Your task to perform on an android device: open app "Move to iOS" (install if not already installed) Image 0: 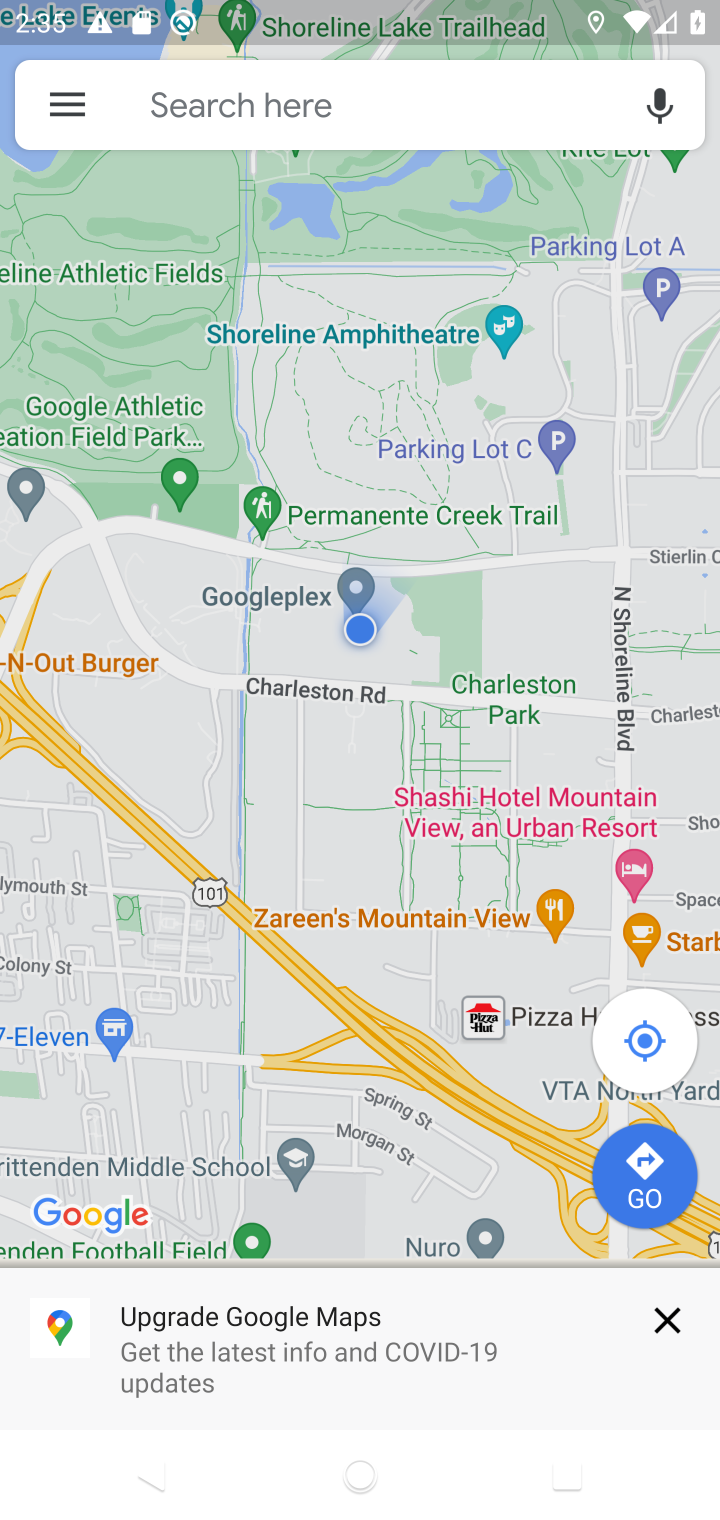
Step 0: press home button
Your task to perform on an android device: open app "Move to iOS" (install if not already installed) Image 1: 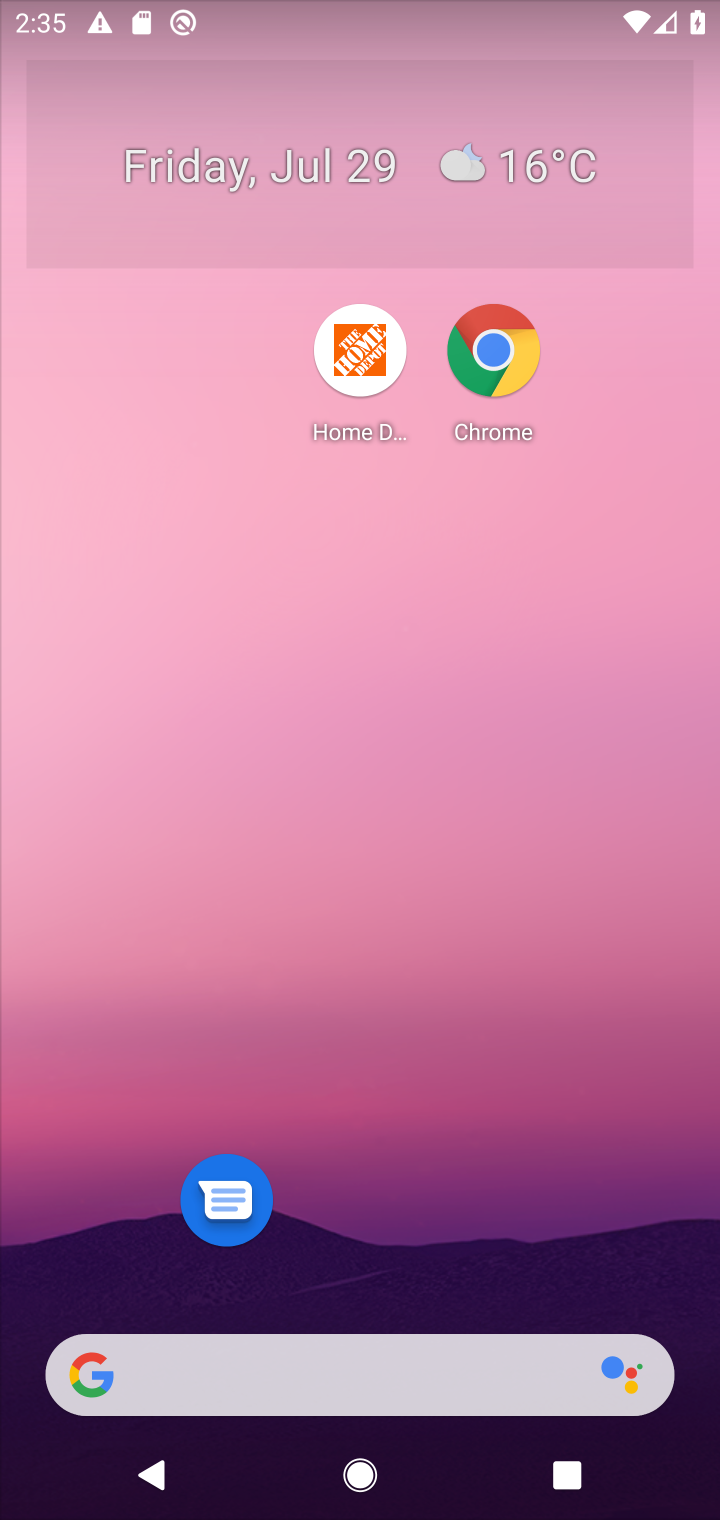
Step 1: drag from (572, 970) to (520, 57)
Your task to perform on an android device: open app "Move to iOS" (install if not already installed) Image 2: 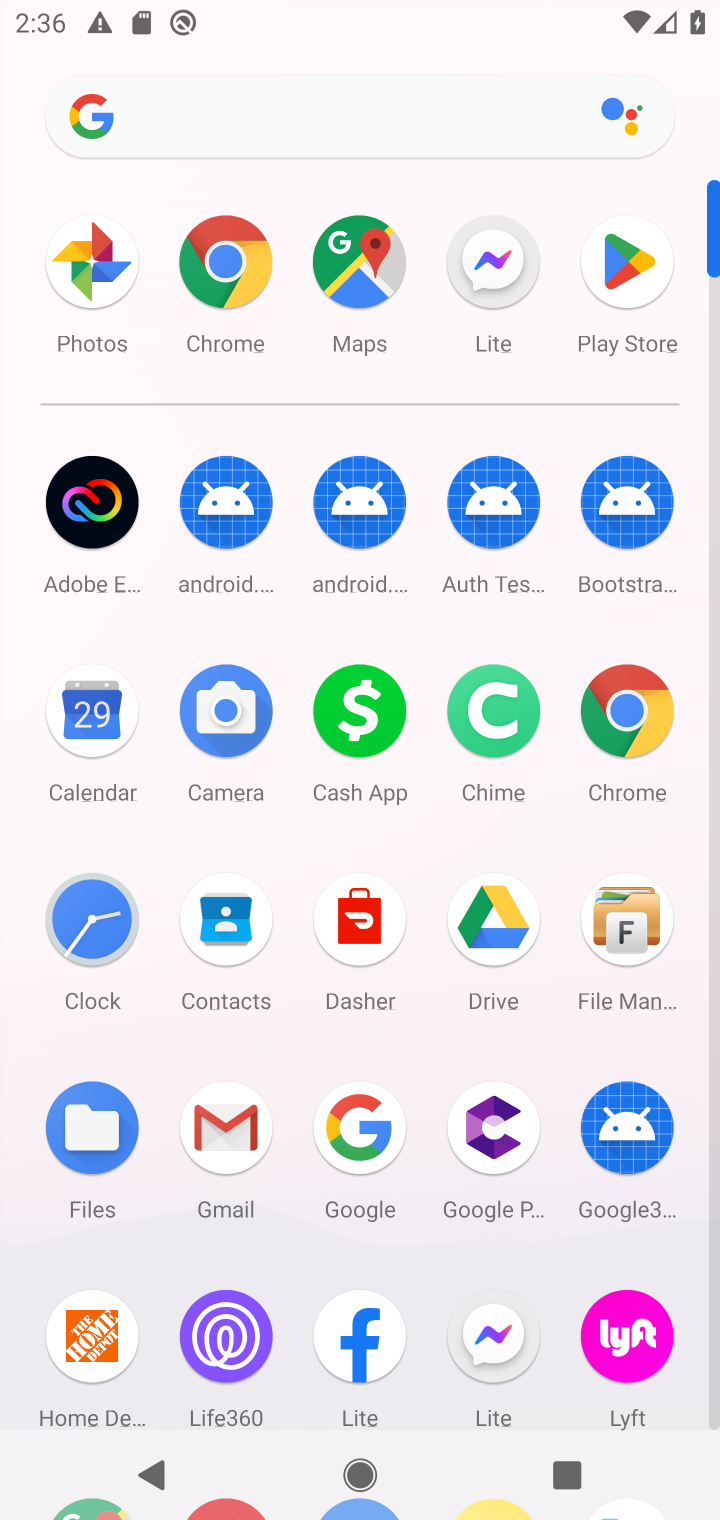
Step 2: click (649, 264)
Your task to perform on an android device: open app "Move to iOS" (install if not already installed) Image 3: 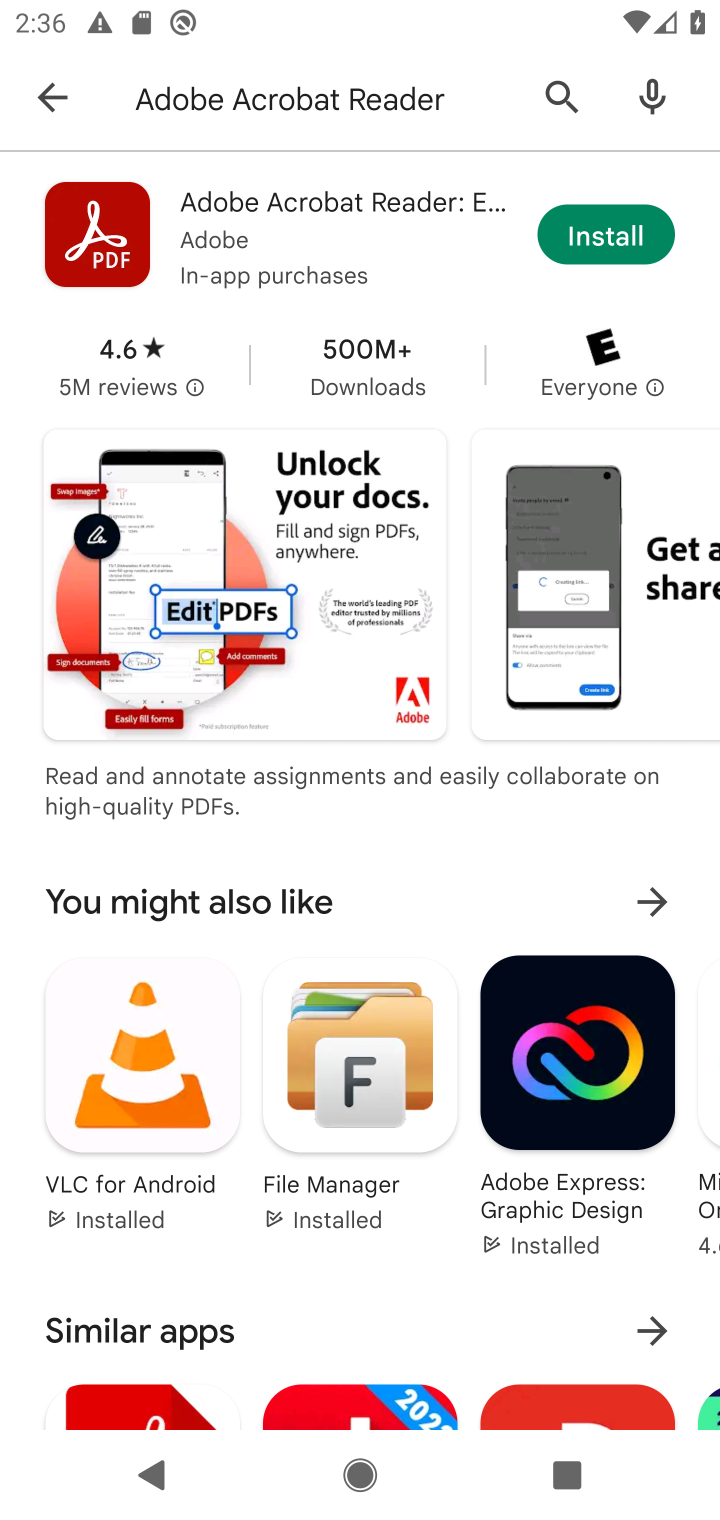
Step 3: click (354, 81)
Your task to perform on an android device: open app "Move to iOS" (install if not already installed) Image 4: 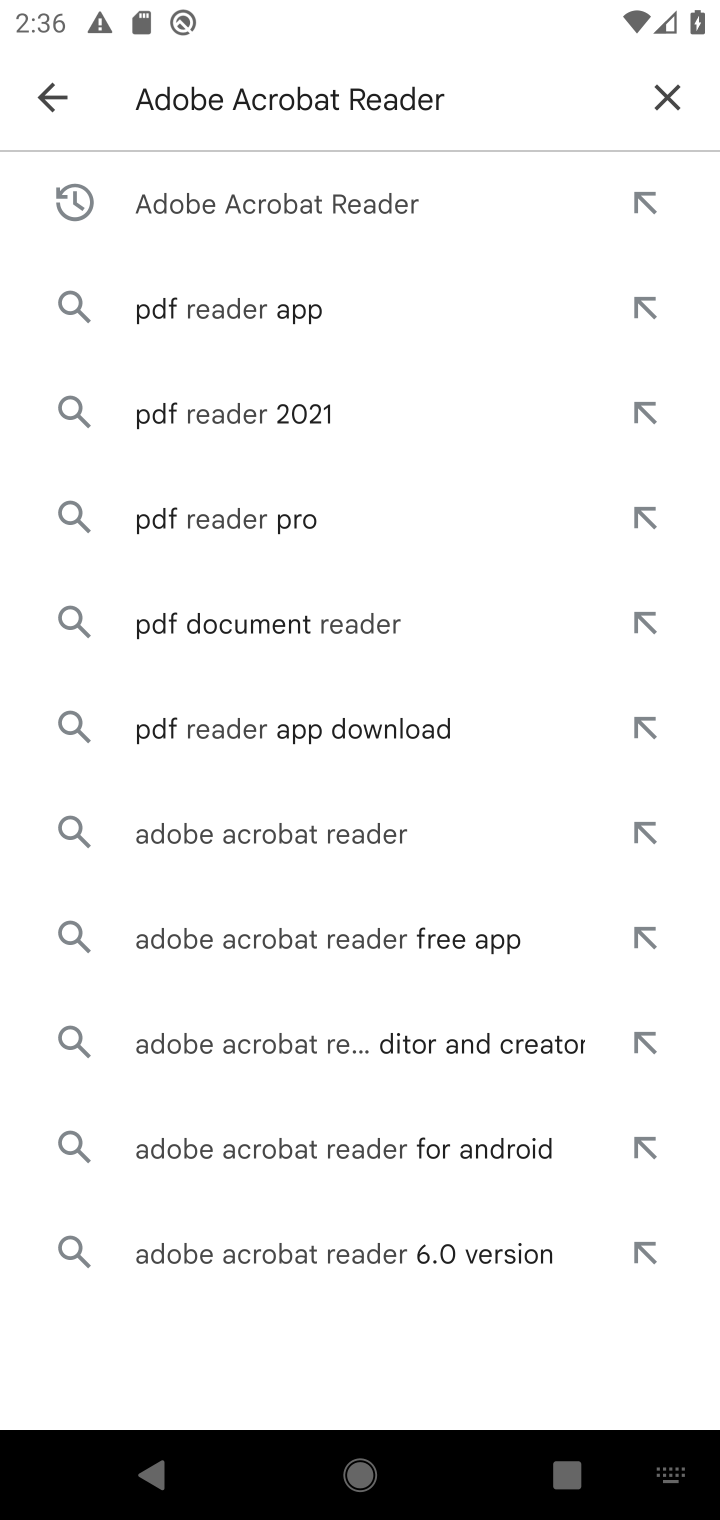
Step 4: click (685, 92)
Your task to perform on an android device: open app "Move to iOS" (install if not already installed) Image 5: 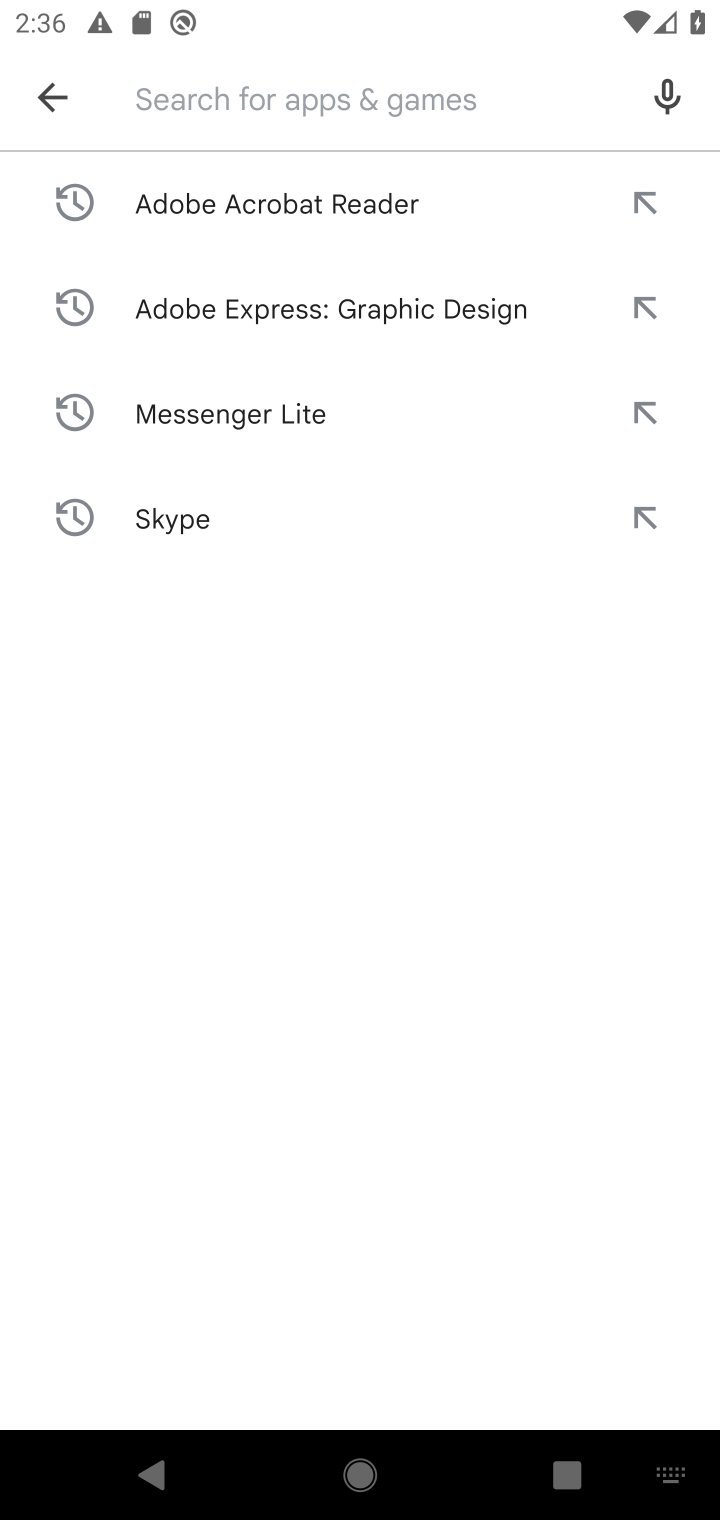
Step 5: type "Move to iOS"
Your task to perform on an android device: open app "Move to iOS" (install if not already installed) Image 6: 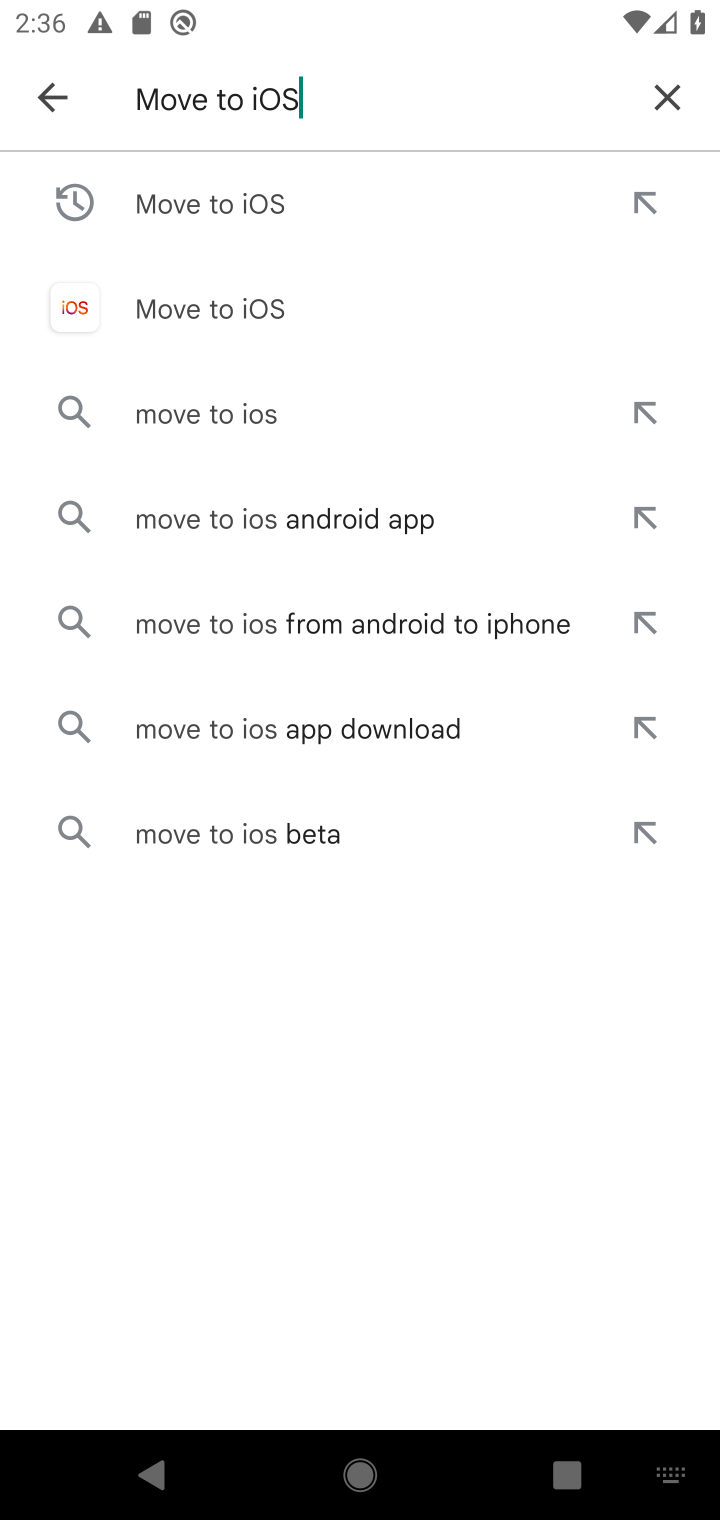
Step 6: press enter
Your task to perform on an android device: open app "Move to iOS" (install if not already installed) Image 7: 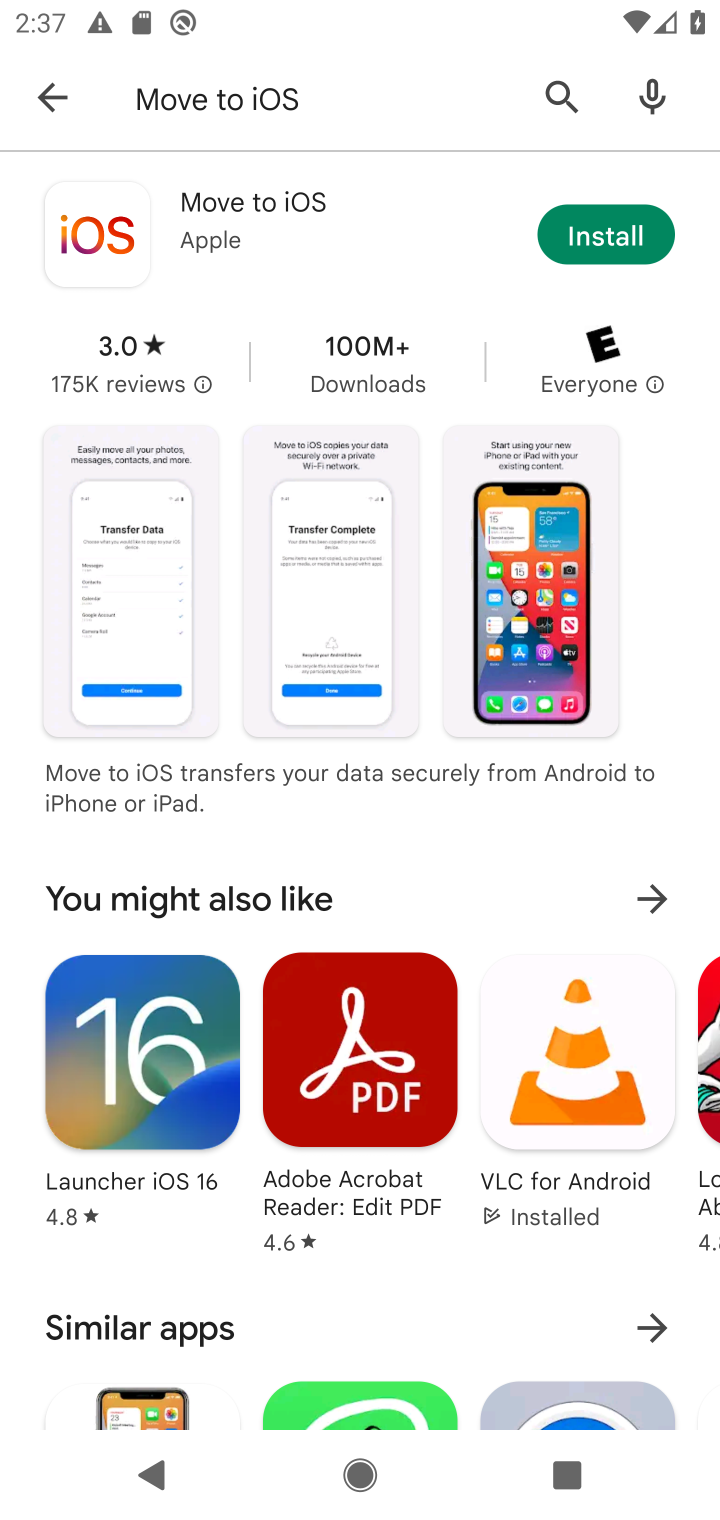
Step 7: click (599, 233)
Your task to perform on an android device: open app "Move to iOS" (install if not already installed) Image 8: 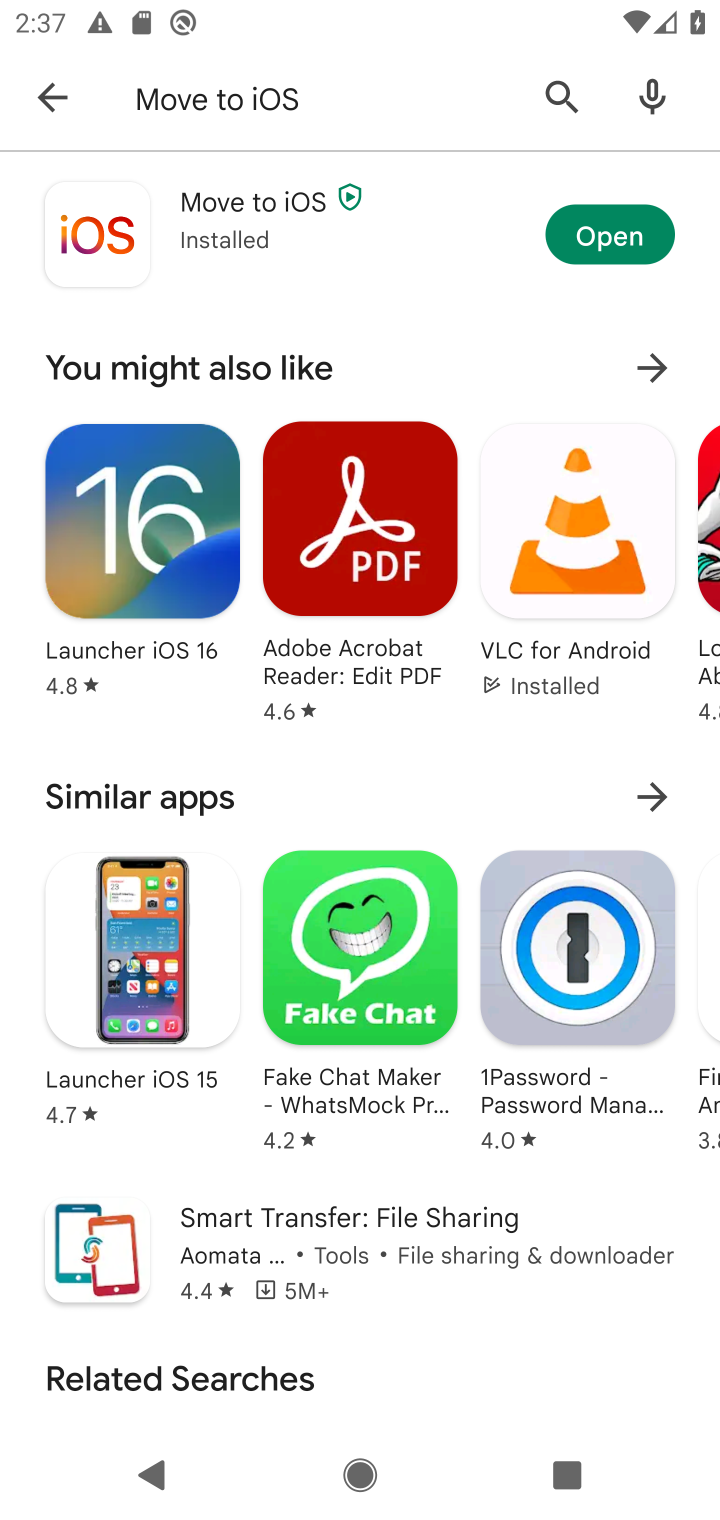
Step 8: click (574, 242)
Your task to perform on an android device: open app "Move to iOS" (install if not already installed) Image 9: 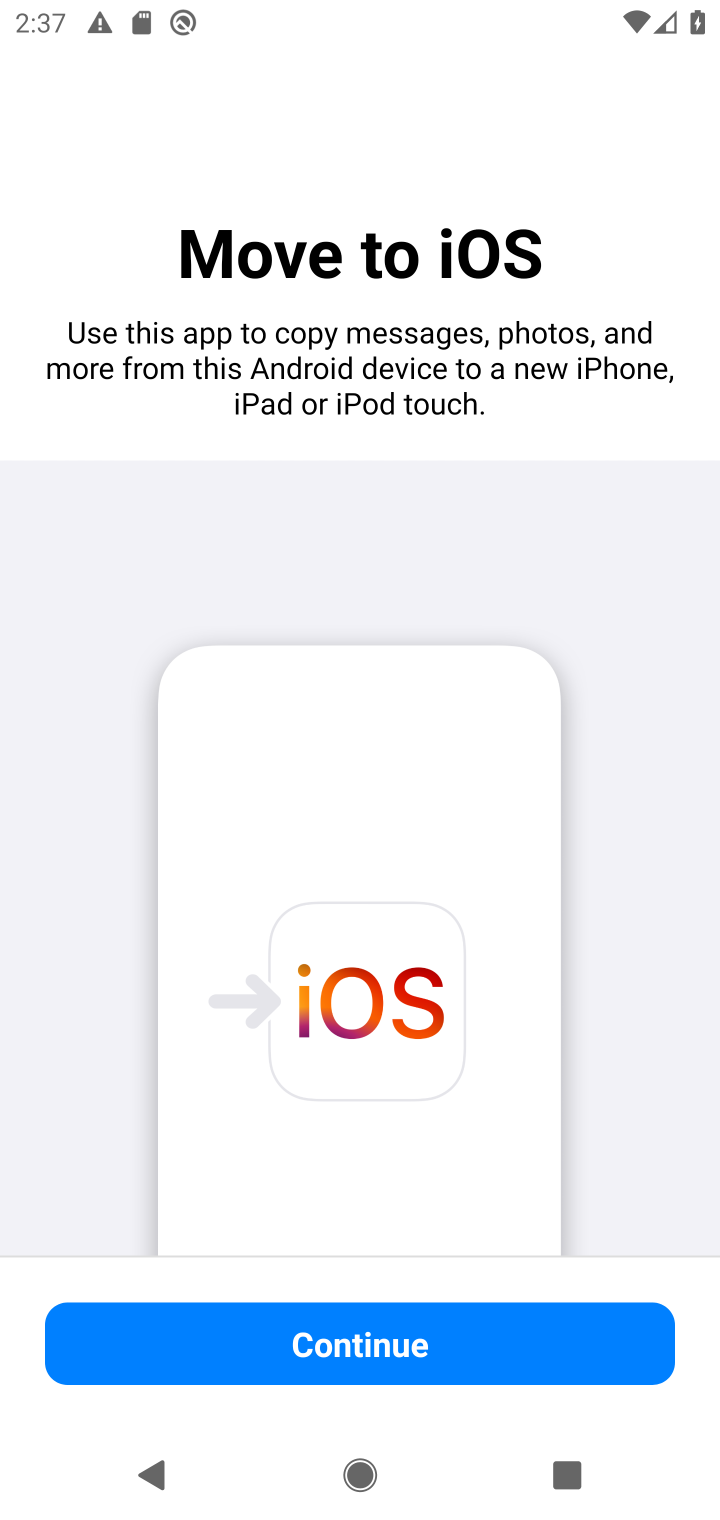
Step 9: task complete